Your task to perform on an android device: Empty the shopping cart on amazon.com. Image 0: 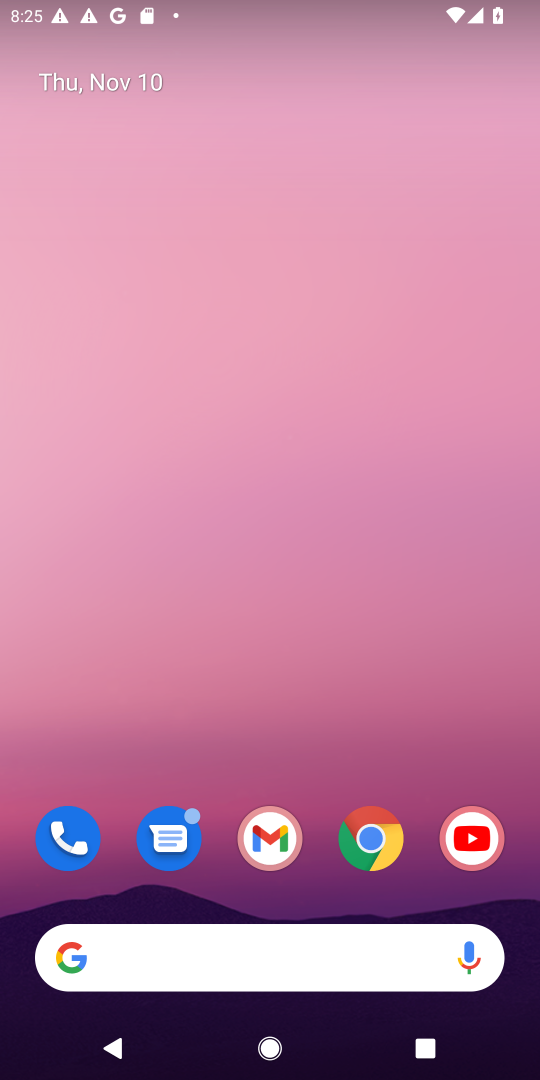
Step 0: drag from (304, 883) to (316, 102)
Your task to perform on an android device: Empty the shopping cart on amazon.com. Image 1: 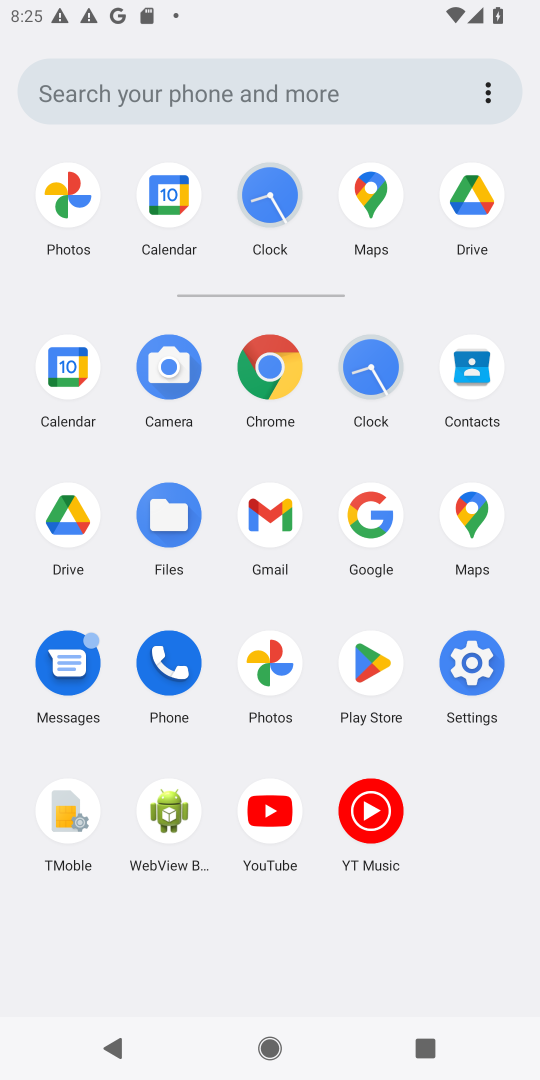
Step 1: click (274, 365)
Your task to perform on an android device: Empty the shopping cart on amazon.com. Image 2: 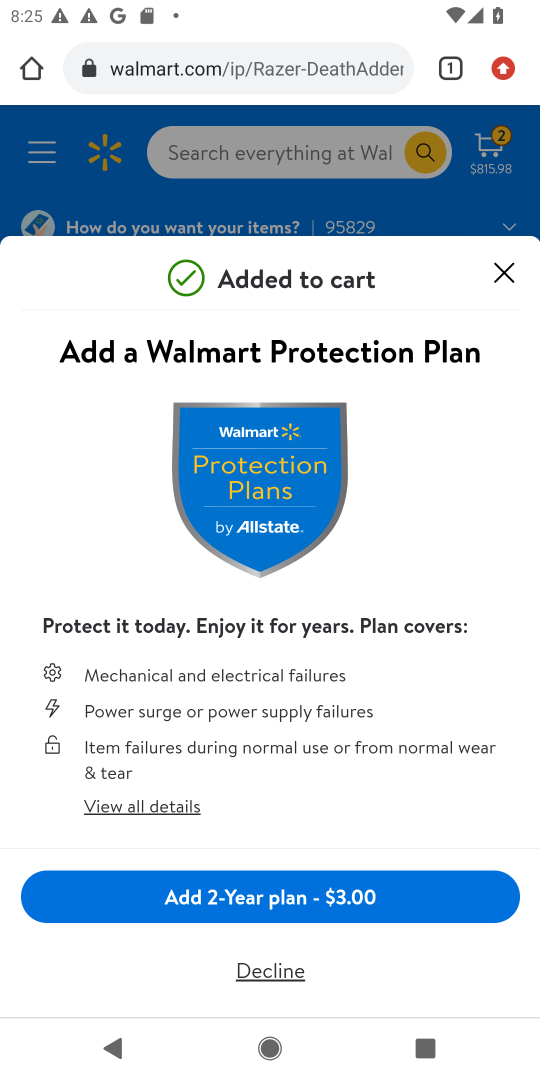
Step 2: click (305, 66)
Your task to perform on an android device: Empty the shopping cart on amazon.com. Image 3: 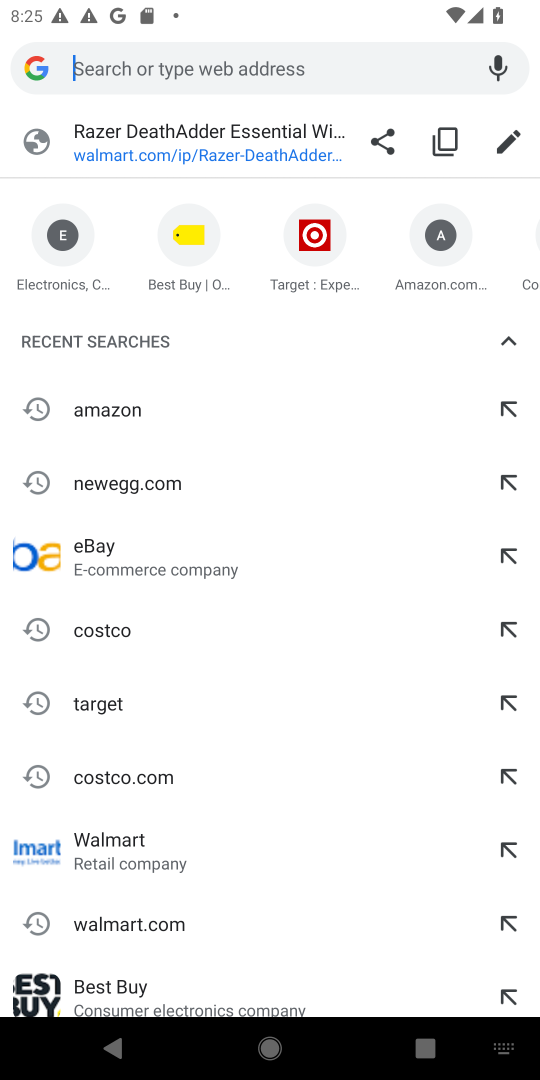
Step 3: type "amazon.com"
Your task to perform on an android device: Empty the shopping cart on amazon.com. Image 4: 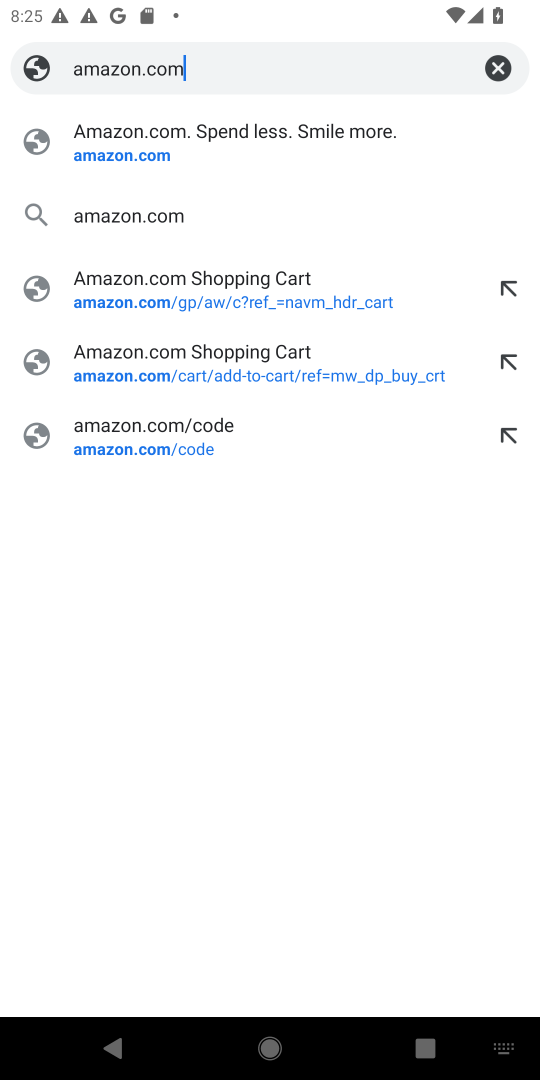
Step 4: press enter
Your task to perform on an android device: Empty the shopping cart on amazon.com. Image 5: 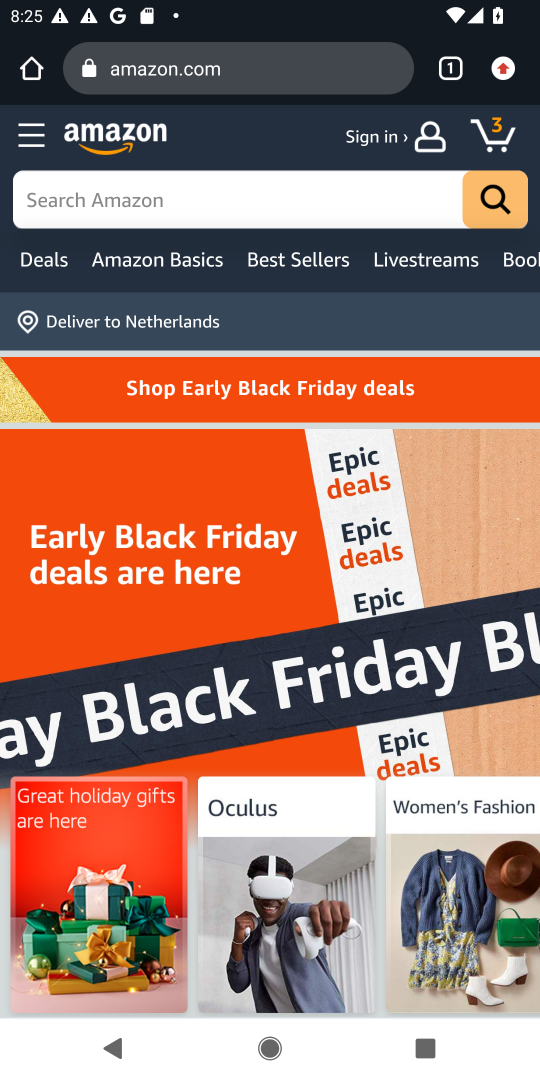
Step 5: click (501, 126)
Your task to perform on an android device: Empty the shopping cart on amazon.com. Image 6: 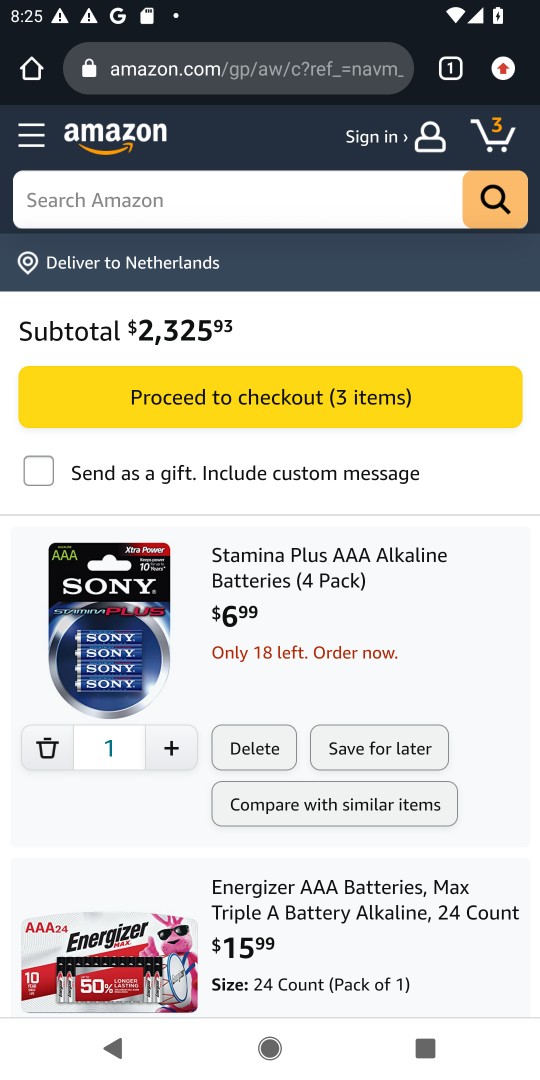
Step 6: click (32, 750)
Your task to perform on an android device: Empty the shopping cart on amazon.com. Image 7: 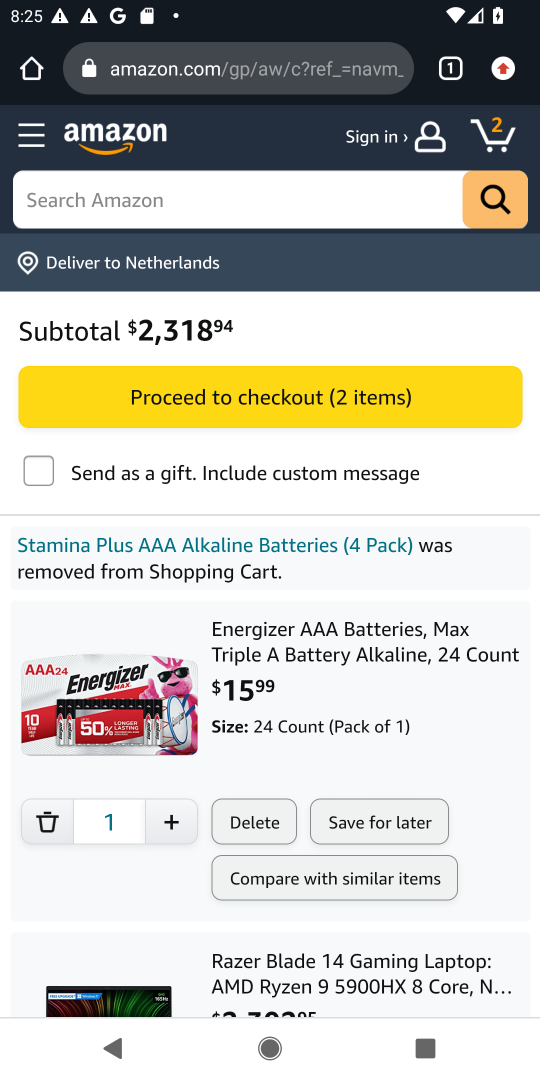
Step 7: click (54, 824)
Your task to perform on an android device: Empty the shopping cart on amazon.com. Image 8: 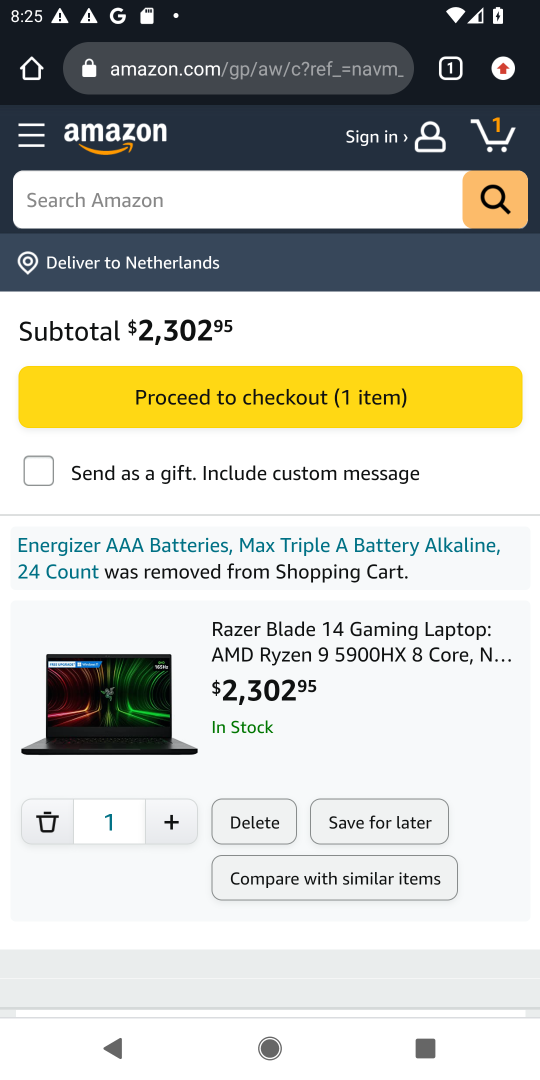
Step 8: click (52, 822)
Your task to perform on an android device: Empty the shopping cart on amazon.com. Image 9: 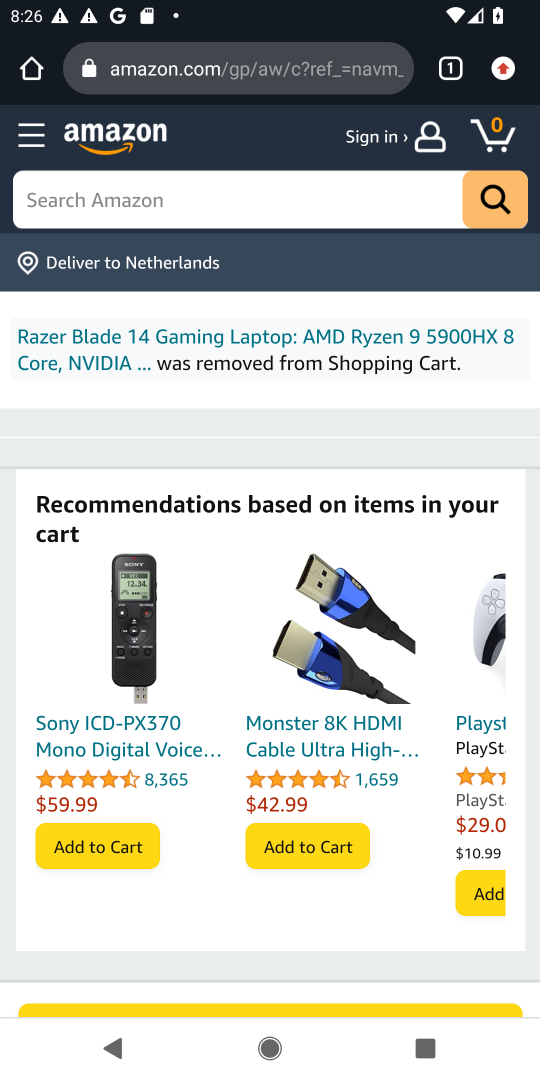
Step 9: task complete